Your task to perform on an android device: turn on data saver in the chrome app Image 0: 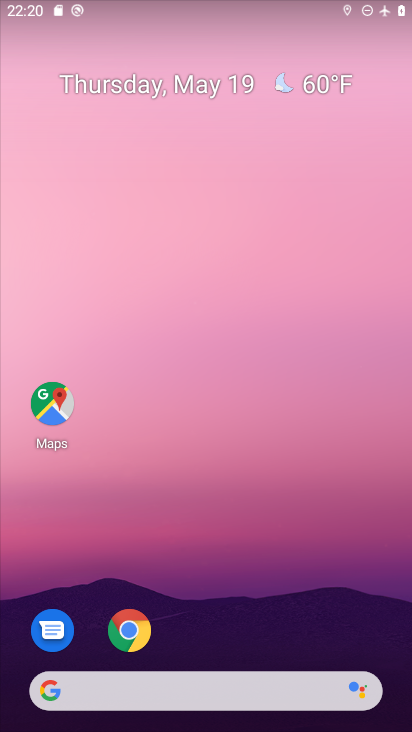
Step 0: click (129, 629)
Your task to perform on an android device: turn on data saver in the chrome app Image 1: 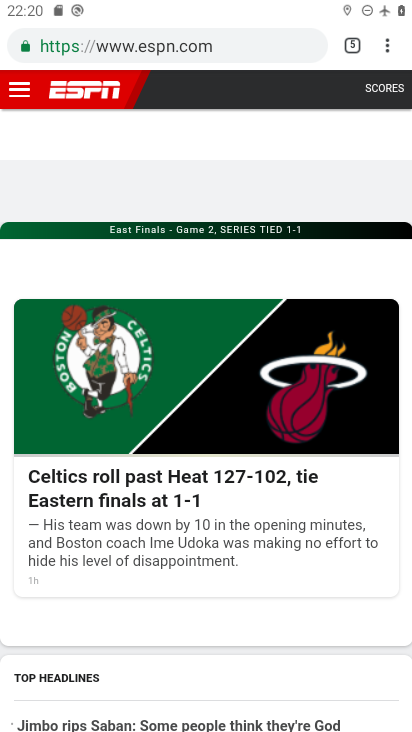
Step 1: click (389, 41)
Your task to perform on an android device: turn on data saver in the chrome app Image 2: 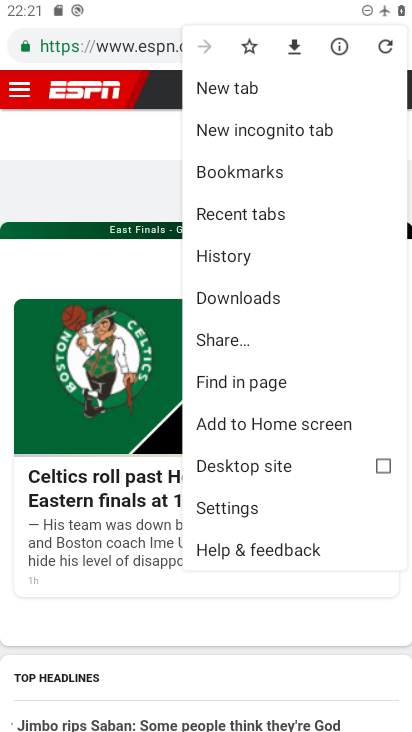
Step 2: click (254, 508)
Your task to perform on an android device: turn on data saver in the chrome app Image 3: 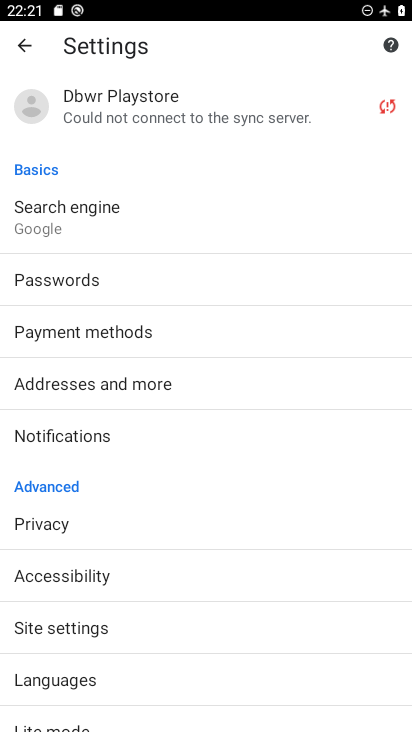
Step 3: drag from (265, 455) to (232, 186)
Your task to perform on an android device: turn on data saver in the chrome app Image 4: 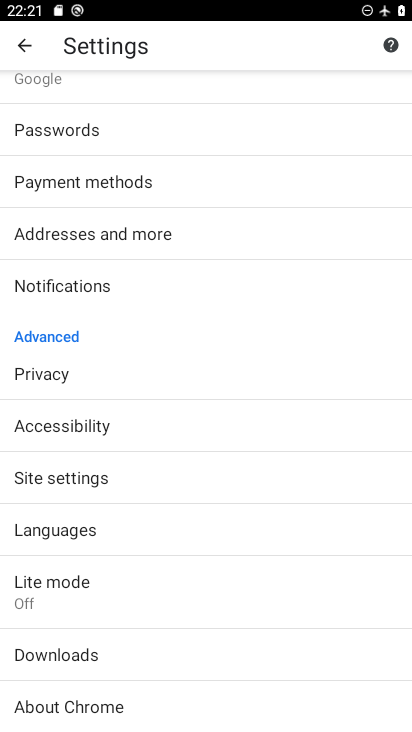
Step 4: click (67, 579)
Your task to perform on an android device: turn on data saver in the chrome app Image 5: 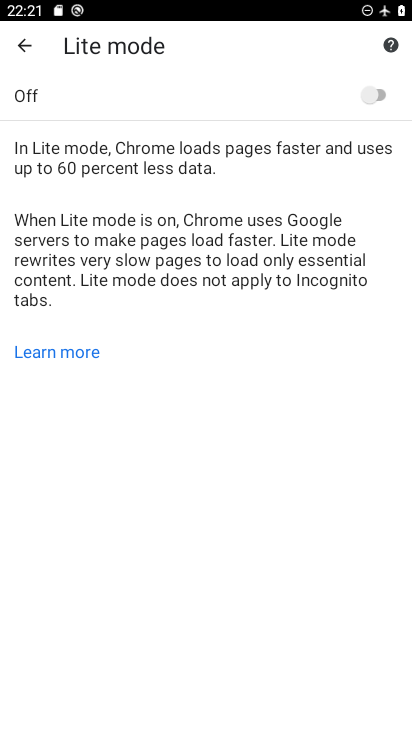
Step 5: click (376, 101)
Your task to perform on an android device: turn on data saver in the chrome app Image 6: 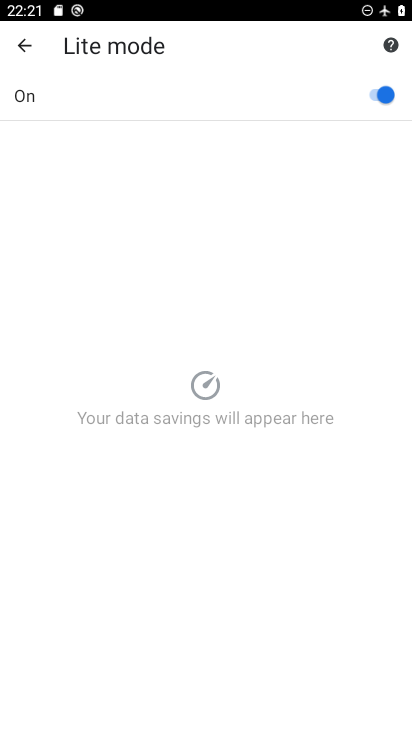
Step 6: task complete